Your task to perform on an android device: toggle translation in the chrome app Image 0: 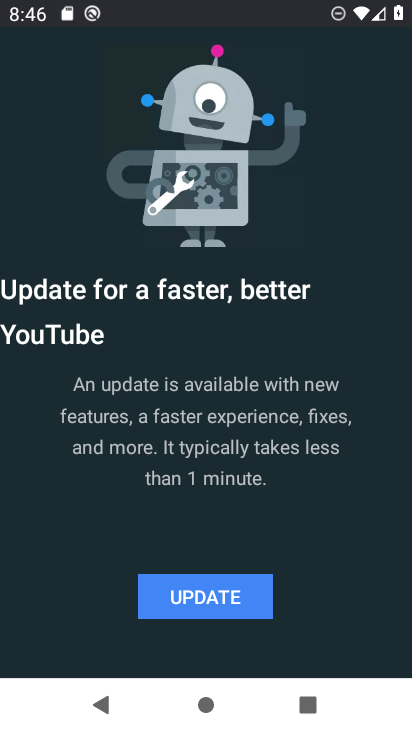
Step 0: press home button
Your task to perform on an android device: toggle translation in the chrome app Image 1: 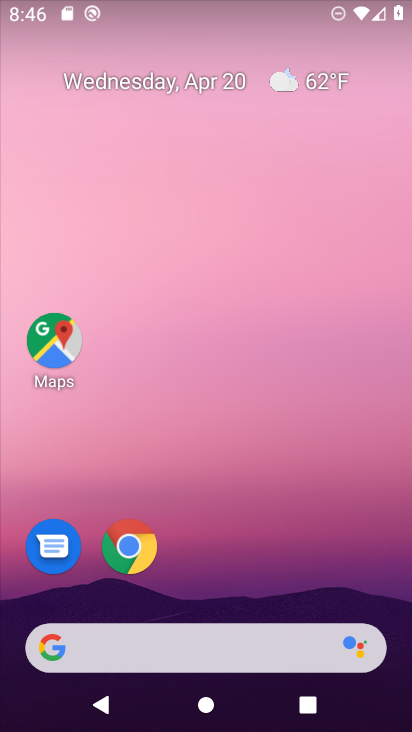
Step 1: click (132, 534)
Your task to perform on an android device: toggle translation in the chrome app Image 2: 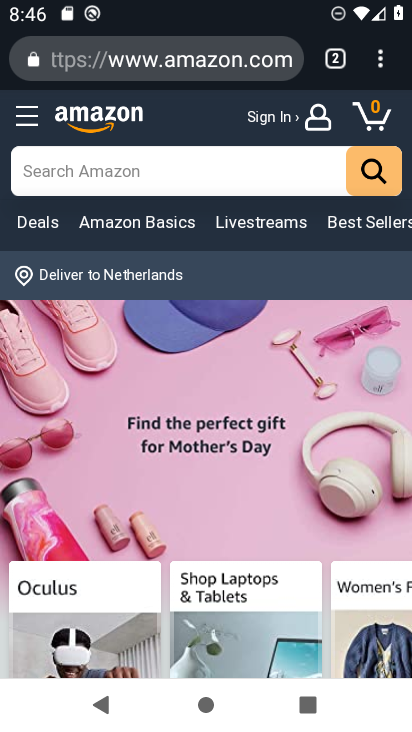
Step 2: click (378, 63)
Your task to perform on an android device: toggle translation in the chrome app Image 3: 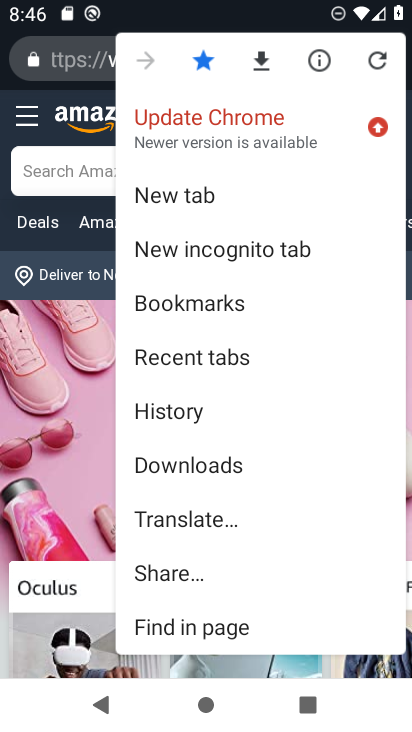
Step 3: drag from (262, 578) to (320, 271)
Your task to perform on an android device: toggle translation in the chrome app Image 4: 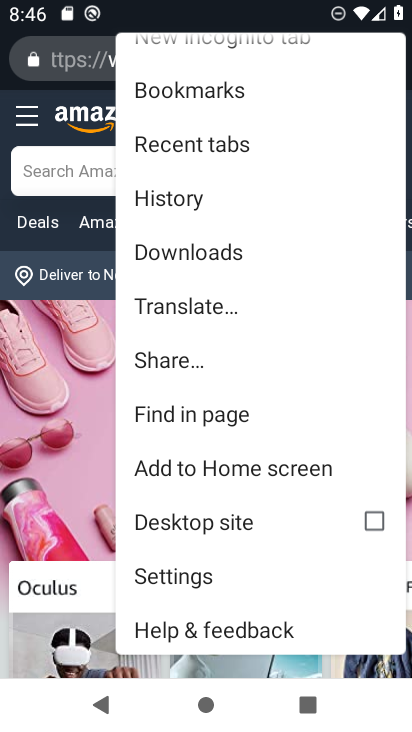
Step 4: click (195, 569)
Your task to perform on an android device: toggle translation in the chrome app Image 5: 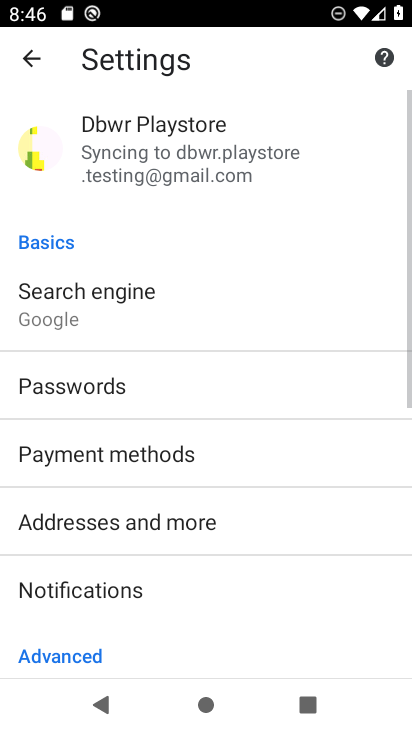
Step 5: drag from (226, 596) to (285, 176)
Your task to perform on an android device: toggle translation in the chrome app Image 6: 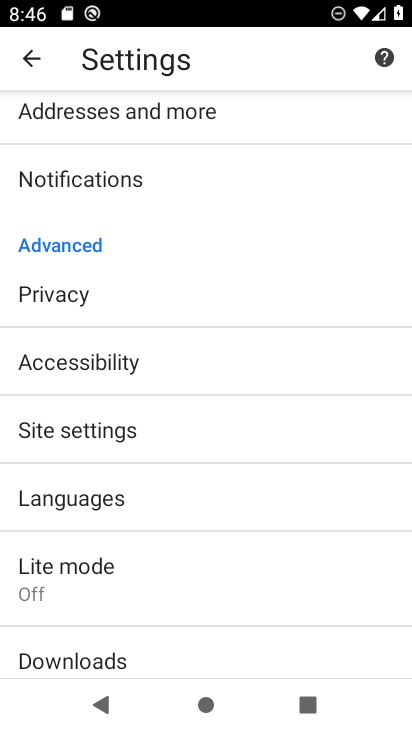
Step 6: click (219, 501)
Your task to perform on an android device: toggle translation in the chrome app Image 7: 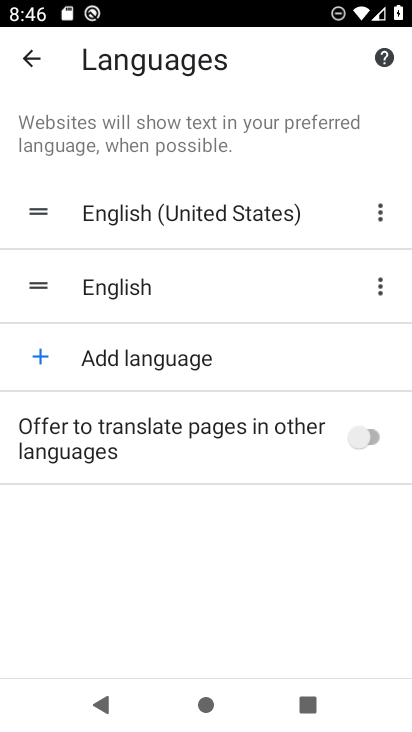
Step 7: click (372, 433)
Your task to perform on an android device: toggle translation in the chrome app Image 8: 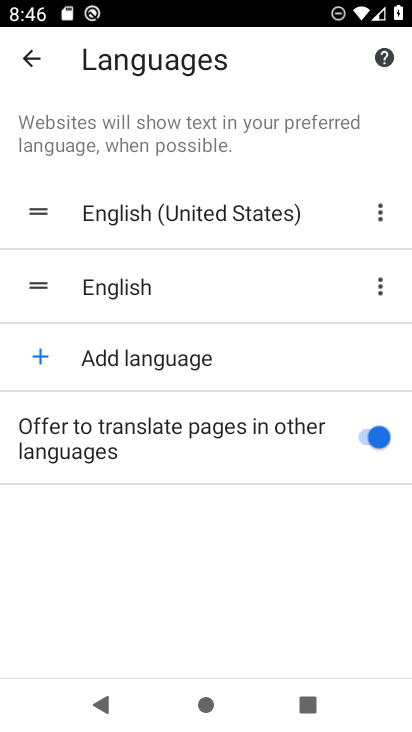
Step 8: task complete